Your task to perform on an android device: Open ESPN.com Image 0: 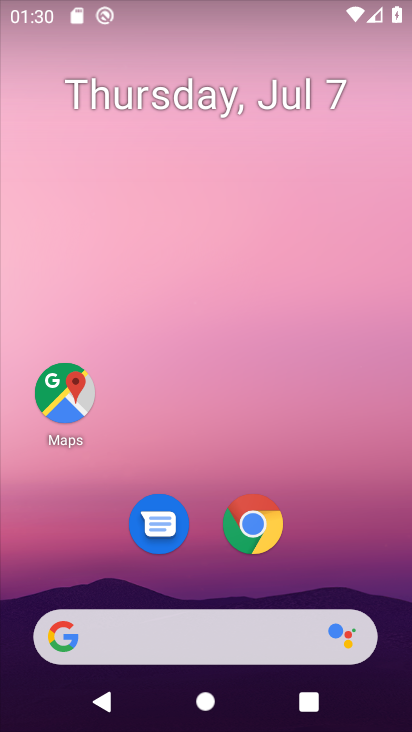
Step 0: click (222, 637)
Your task to perform on an android device: Open ESPN.com Image 1: 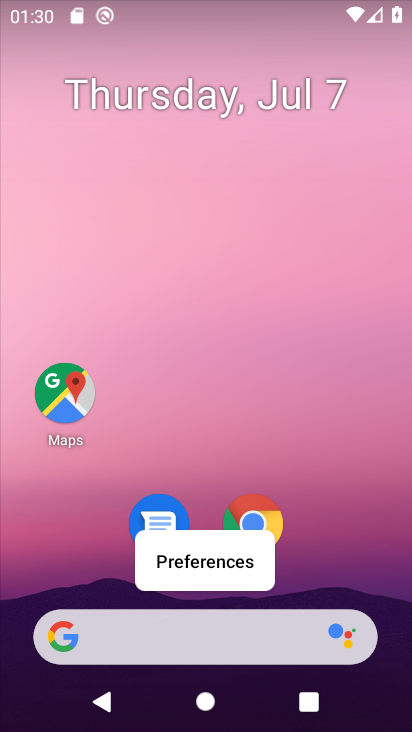
Step 1: click (266, 639)
Your task to perform on an android device: Open ESPN.com Image 2: 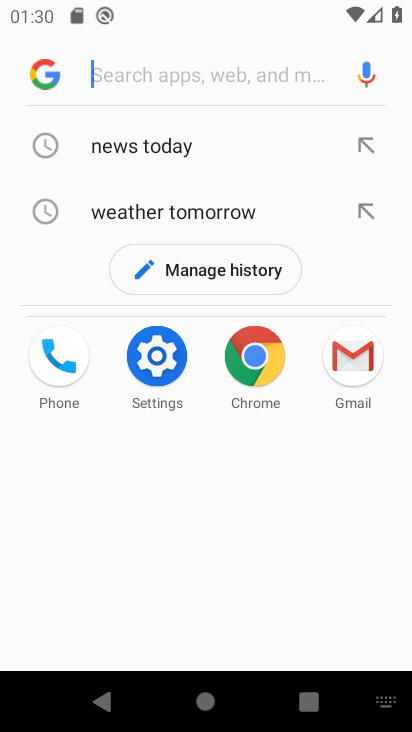
Step 2: type "espn.com"
Your task to perform on an android device: Open ESPN.com Image 3: 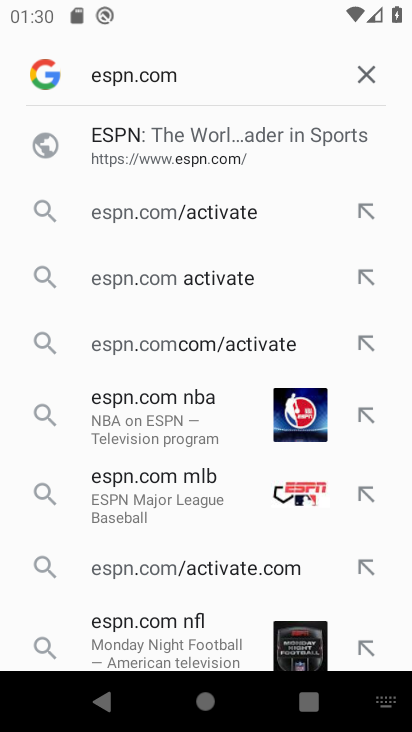
Step 3: click (124, 143)
Your task to perform on an android device: Open ESPN.com Image 4: 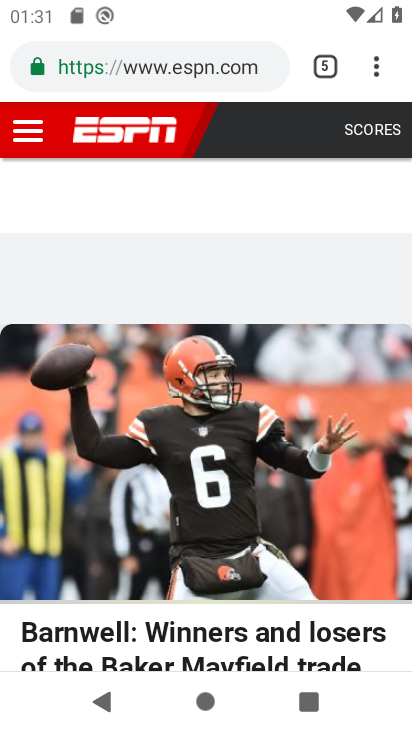
Step 4: task complete